Your task to perform on an android device: Look up the best rated wireless earbuds on Ali Express Image 0: 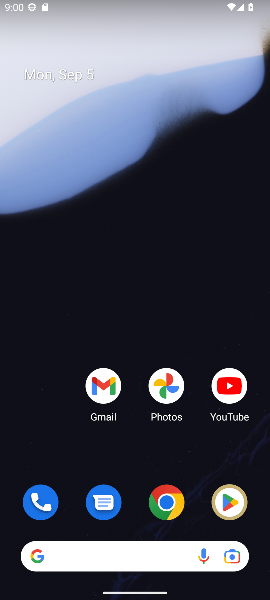
Step 0: drag from (78, 456) to (7, 20)
Your task to perform on an android device: Look up the best rated wireless earbuds on Ali Express Image 1: 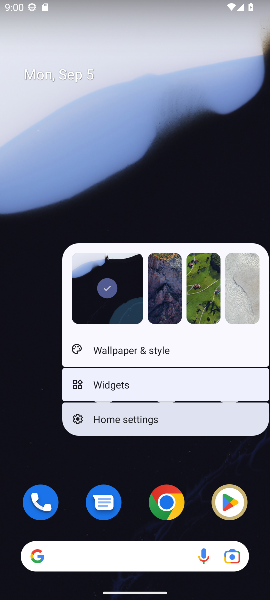
Step 1: click (107, 182)
Your task to perform on an android device: Look up the best rated wireless earbuds on Ali Express Image 2: 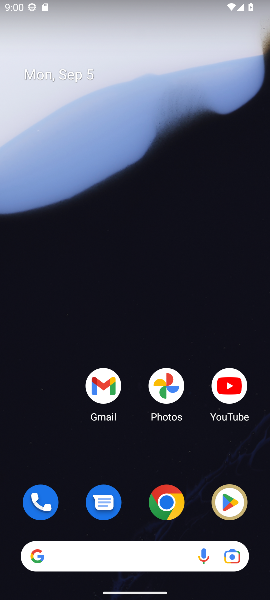
Step 2: drag from (71, 416) to (27, 24)
Your task to perform on an android device: Look up the best rated wireless earbuds on Ali Express Image 3: 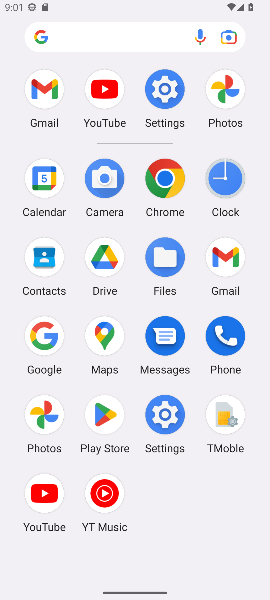
Step 3: click (43, 339)
Your task to perform on an android device: Look up the best rated wireless earbuds on Ali Express Image 4: 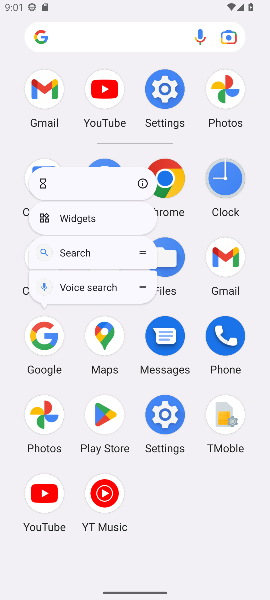
Step 4: click (43, 339)
Your task to perform on an android device: Look up the best rated wireless earbuds on Ali Express Image 5: 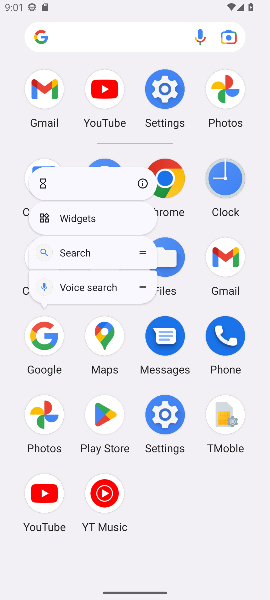
Step 5: click (43, 339)
Your task to perform on an android device: Look up the best rated wireless earbuds on Ali Express Image 6: 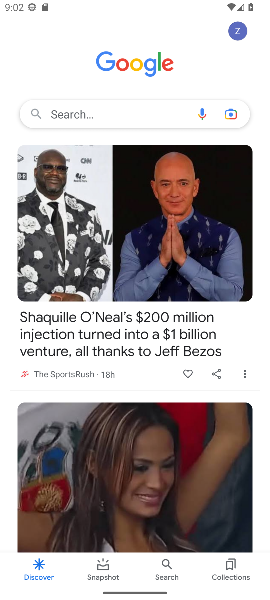
Step 6: click (90, 124)
Your task to perform on an android device: Look up the best rated wireless earbuds on Ali Express Image 7: 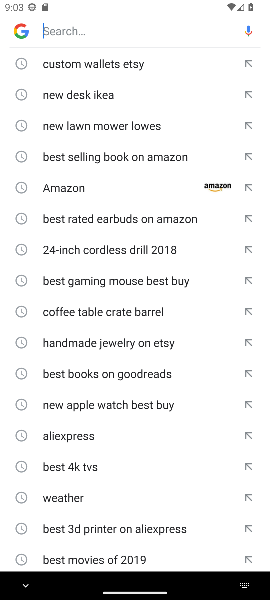
Step 7: type " best rated wireless earbuds on Ali Express"
Your task to perform on an android device: Look up the best rated wireless earbuds on Ali Express Image 8: 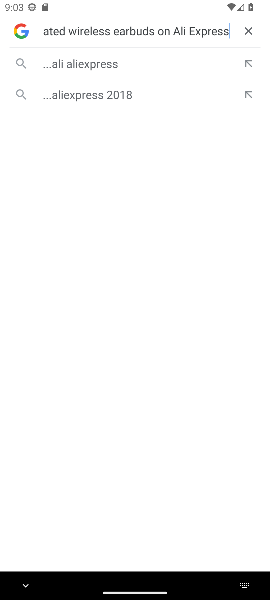
Step 8: click (110, 69)
Your task to perform on an android device: Look up the best rated wireless earbuds on Ali Express Image 9: 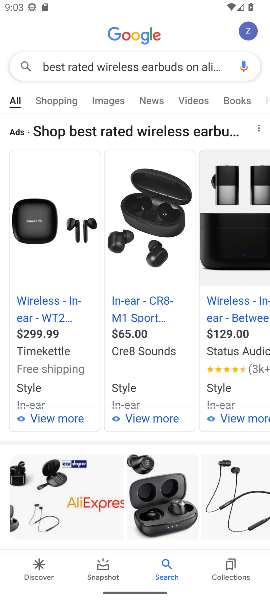
Step 9: task complete